Your task to perform on an android device: Go to Reddit.com Image 0: 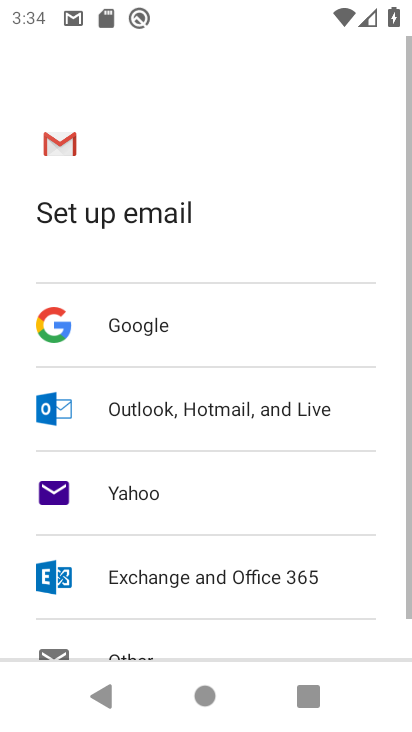
Step 0: press home button
Your task to perform on an android device: Go to Reddit.com Image 1: 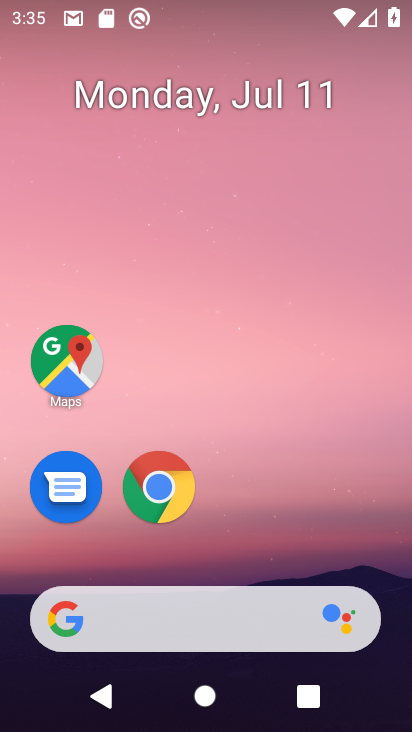
Step 1: click (161, 491)
Your task to perform on an android device: Go to Reddit.com Image 2: 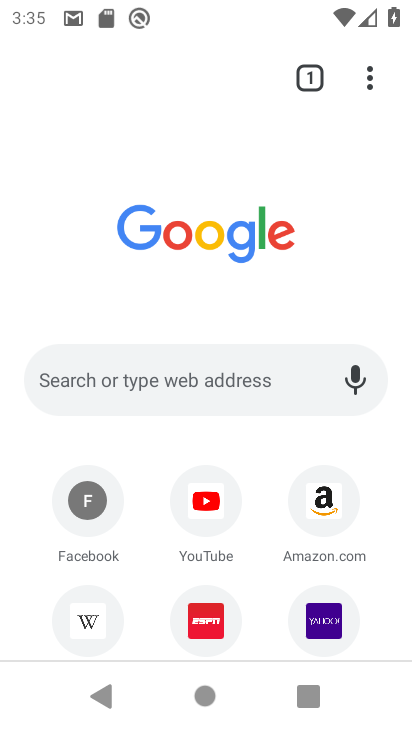
Step 2: click (161, 374)
Your task to perform on an android device: Go to Reddit.com Image 3: 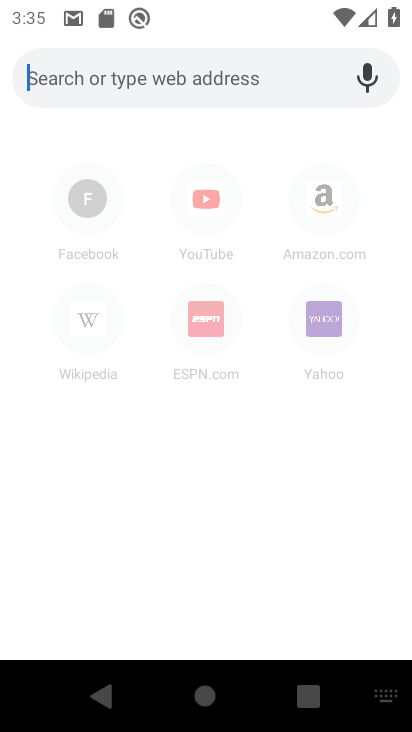
Step 3: type "reddit.com"
Your task to perform on an android device: Go to Reddit.com Image 4: 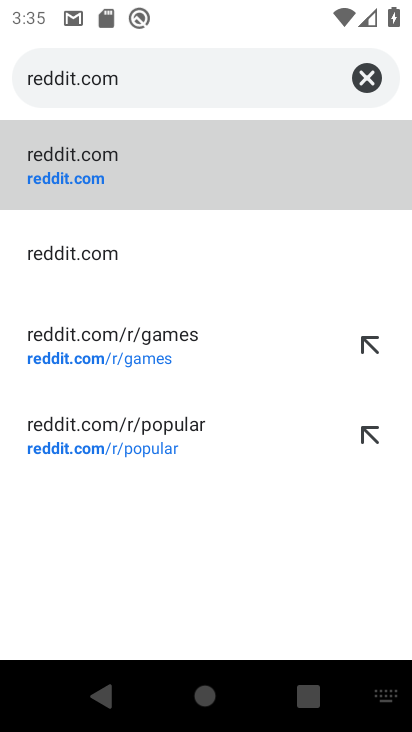
Step 4: click (127, 180)
Your task to perform on an android device: Go to Reddit.com Image 5: 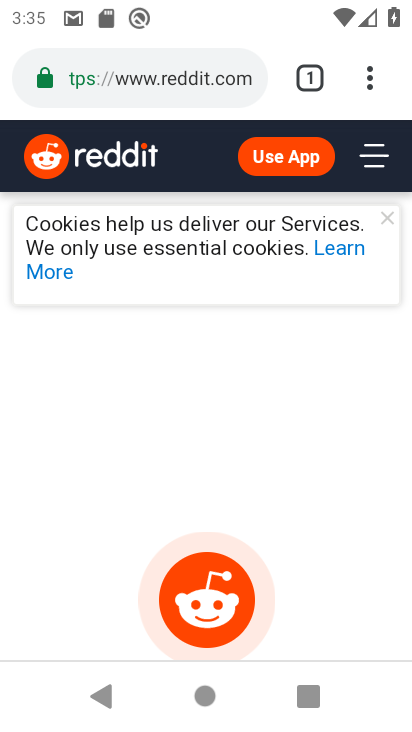
Step 5: task complete